Your task to perform on an android device: Search for Mexican restaurants on Maps Image 0: 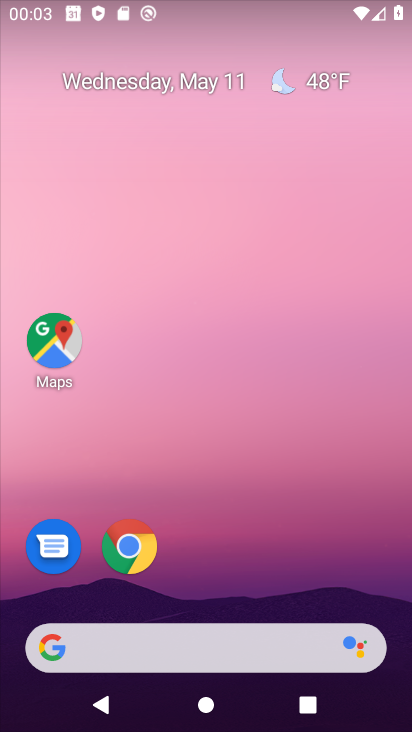
Step 0: click (67, 332)
Your task to perform on an android device: Search for Mexican restaurants on Maps Image 1: 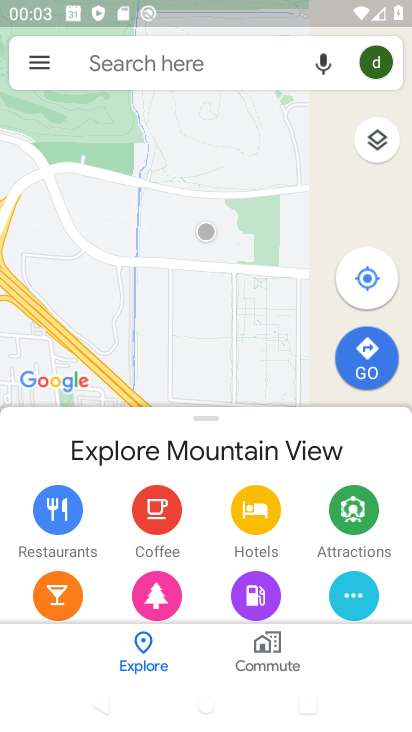
Step 1: click (172, 65)
Your task to perform on an android device: Search for Mexican restaurants on Maps Image 2: 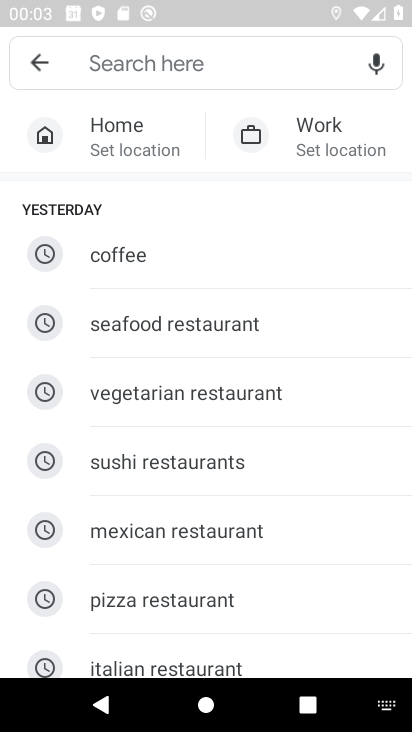
Step 2: type "Mexican restaurants"
Your task to perform on an android device: Search for Mexican restaurants on Maps Image 3: 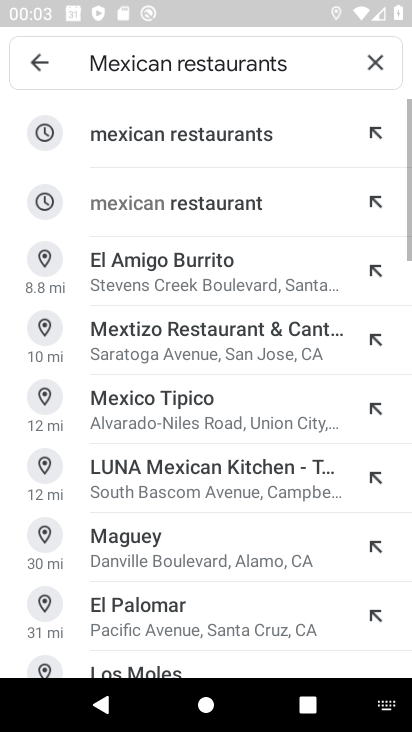
Step 3: click (185, 129)
Your task to perform on an android device: Search for Mexican restaurants on Maps Image 4: 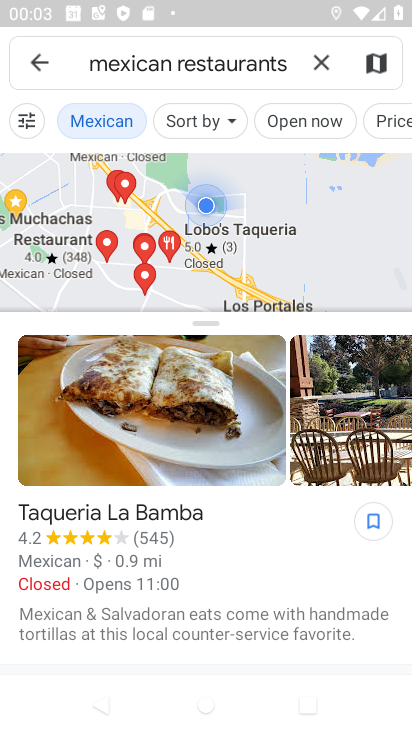
Step 4: task complete